Your task to perform on an android device: Search for seafood restaurants on Google Maps Image 0: 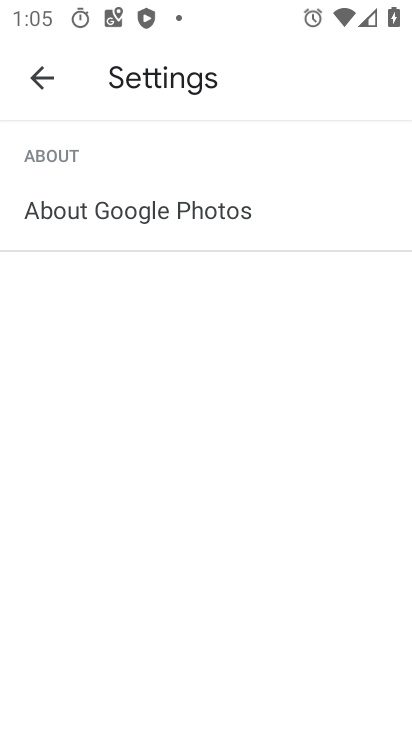
Step 0: press back button
Your task to perform on an android device: Search for seafood restaurants on Google Maps Image 1: 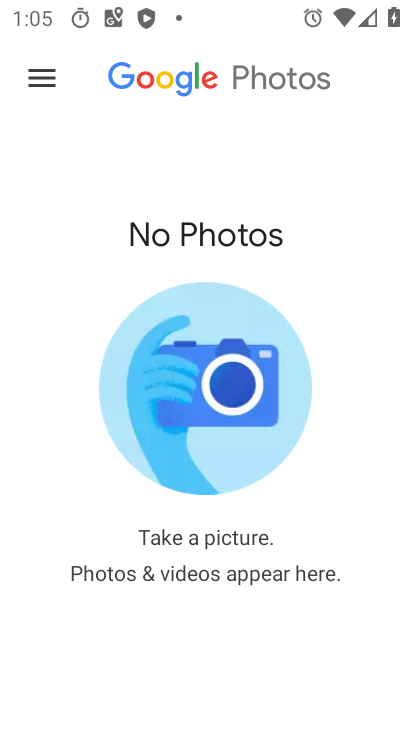
Step 1: press back button
Your task to perform on an android device: Search for seafood restaurants on Google Maps Image 2: 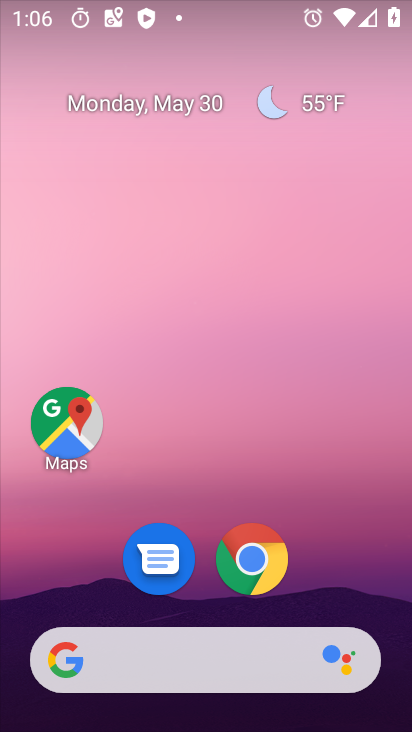
Step 2: click (74, 438)
Your task to perform on an android device: Search for seafood restaurants on Google Maps Image 3: 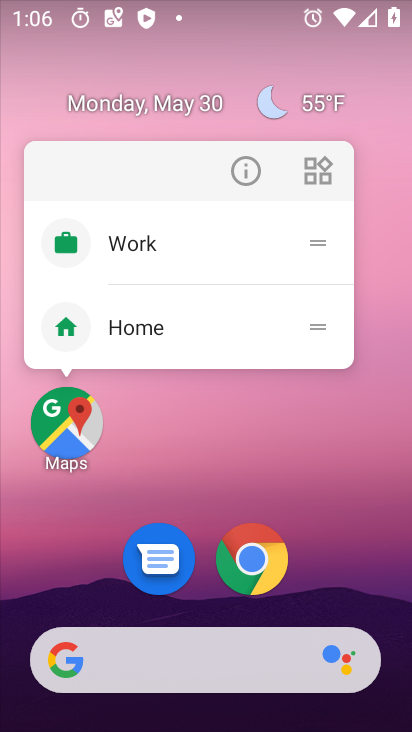
Step 3: click (67, 420)
Your task to perform on an android device: Search for seafood restaurants on Google Maps Image 4: 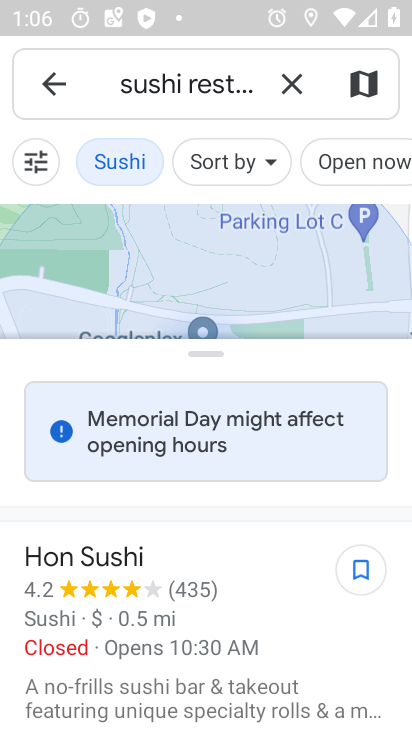
Step 4: click (276, 88)
Your task to perform on an android device: Search for seafood restaurants on Google Maps Image 5: 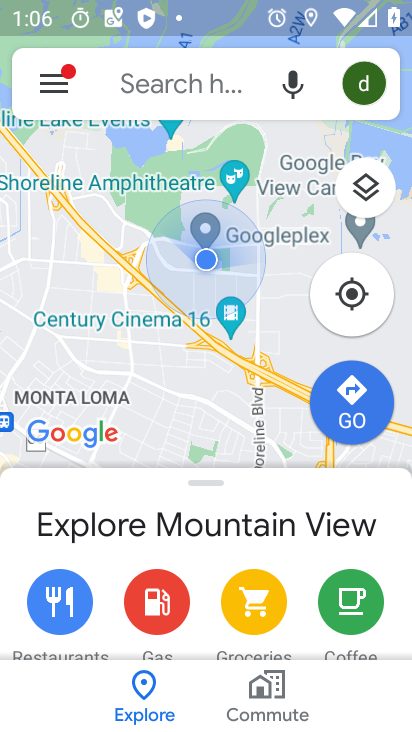
Step 5: click (172, 84)
Your task to perform on an android device: Search for seafood restaurants on Google Maps Image 6: 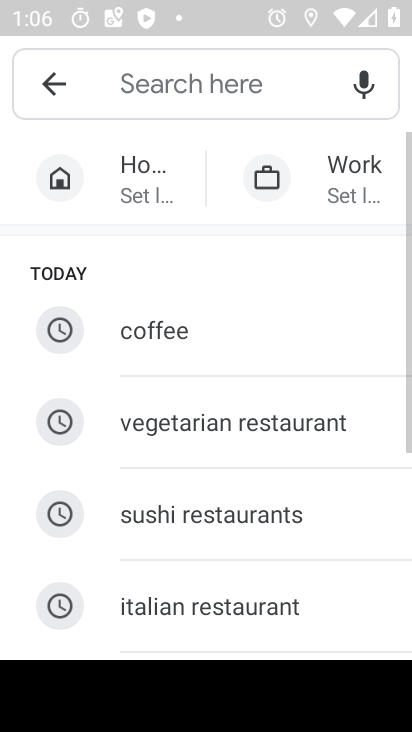
Step 6: drag from (171, 558) to (210, 187)
Your task to perform on an android device: Search for seafood restaurants on Google Maps Image 7: 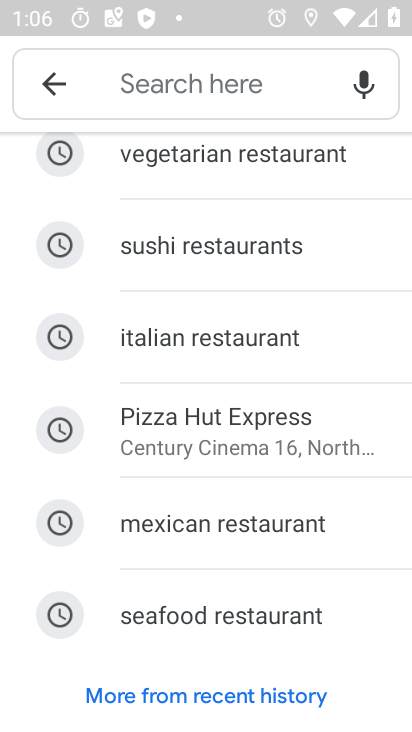
Step 7: click (168, 598)
Your task to perform on an android device: Search for seafood restaurants on Google Maps Image 8: 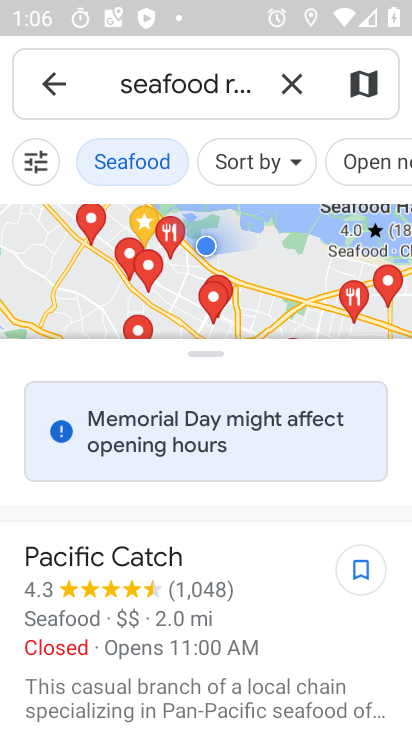
Step 8: task complete